Your task to perform on an android device: turn on notifications settings in the gmail app Image 0: 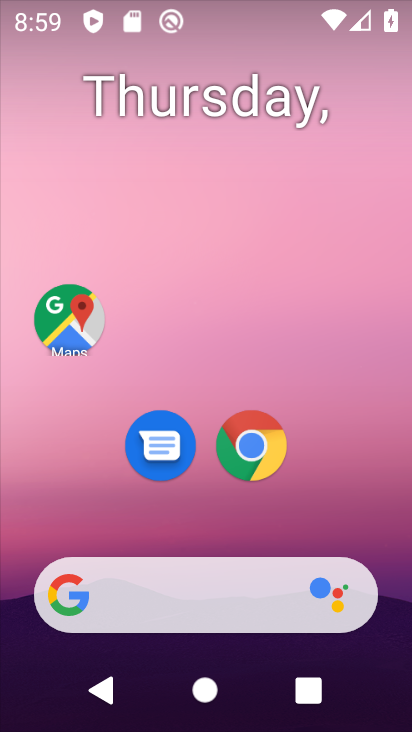
Step 0: drag from (204, 535) to (176, 83)
Your task to perform on an android device: turn on notifications settings in the gmail app Image 1: 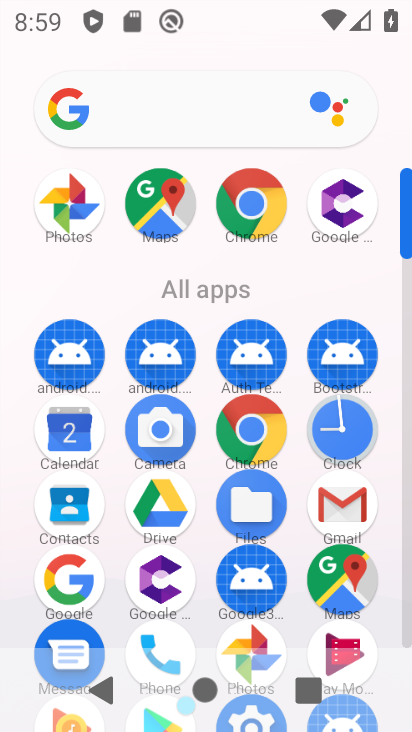
Step 1: click (366, 497)
Your task to perform on an android device: turn on notifications settings in the gmail app Image 2: 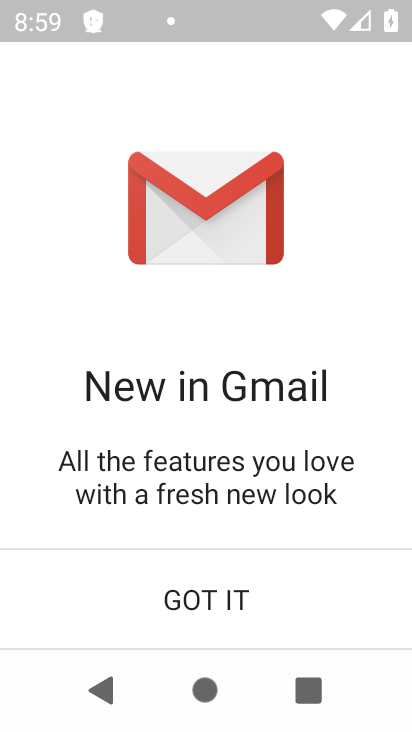
Step 2: click (243, 586)
Your task to perform on an android device: turn on notifications settings in the gmail app Image 3: 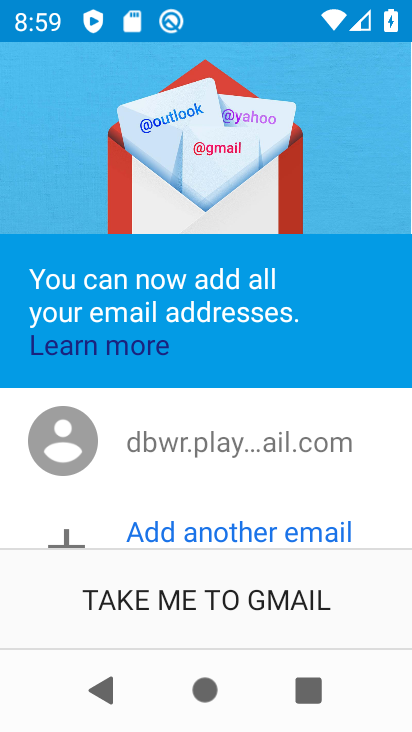
Step 3: click (243, 586)
Your task to perform on an android device: turn on notifications settings in the gmail app Image 4: 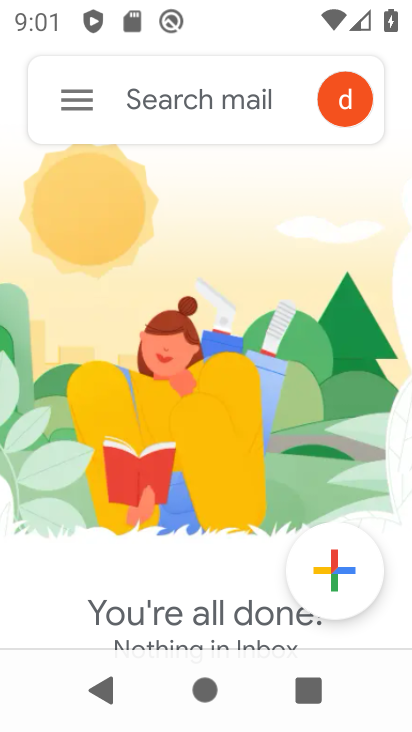
Step 4: press home button
Your task to perform on an android device: turn on notifications settings in the gmail app Image 5: 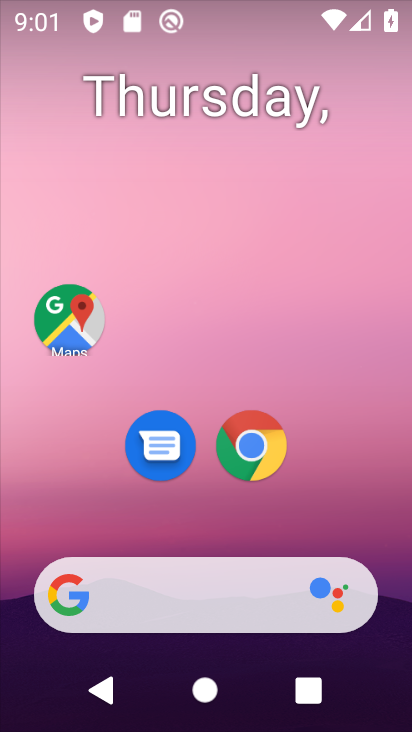
Step 5: drag from (182, 539) to (231, 39)
Your task to perform on an android device: turn on notifications settings in the gmail app Image 6: 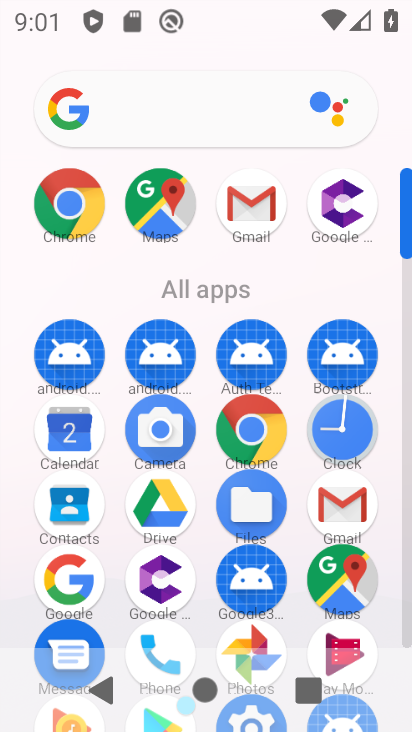
Step 6: click (330, 502)
Your task to perform on an android device: turn on notifications settings in the gmail app Image 7: 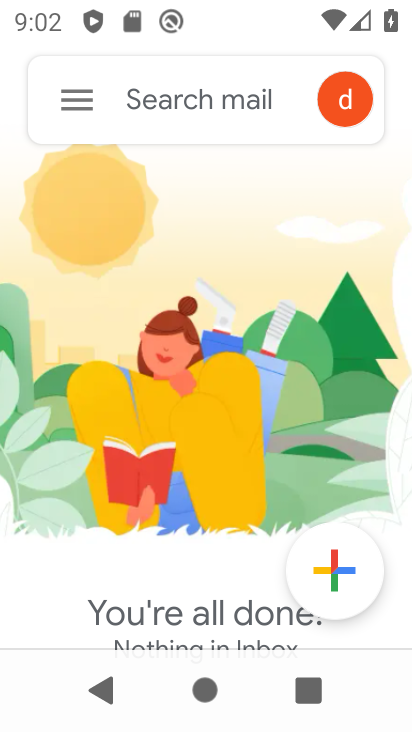
Step 7: click (64, 94)
Your task to perform on an android device: turn on notifications settings in the gmail app Image 8: 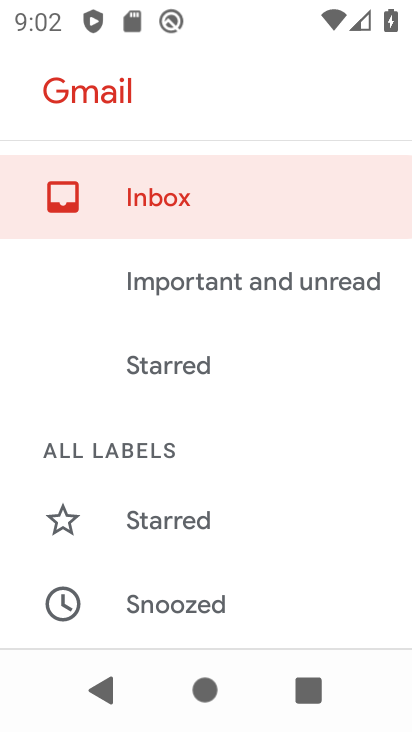
Step 8: drag from (146, 532) to (126, 20)
Your task to perform on an android device: turn on notifications settings in the gmail app Image 9: 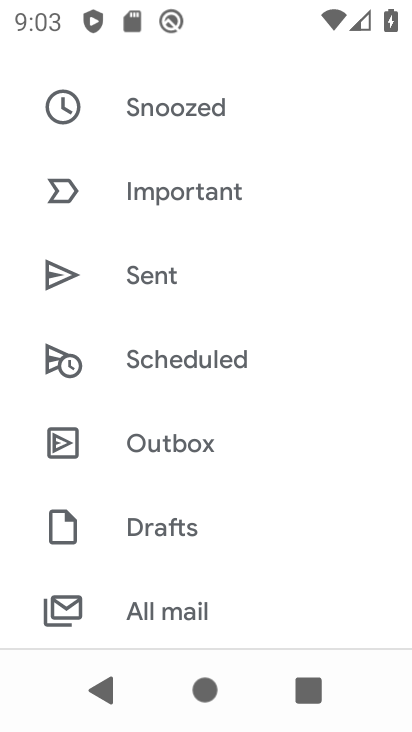
Step 9: drag from (320, 555) to (254, 188)
Your task to perform on an android device: turn on notifications settings in the gmail app Image 10: 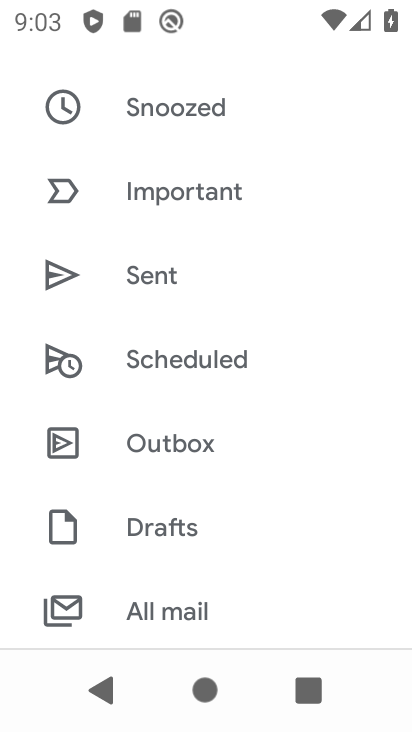
Step 10: drag from (154, 558) to (131, 107)
Your task to perform on an android device: turn on notifications settings in the gmail app Image 11: 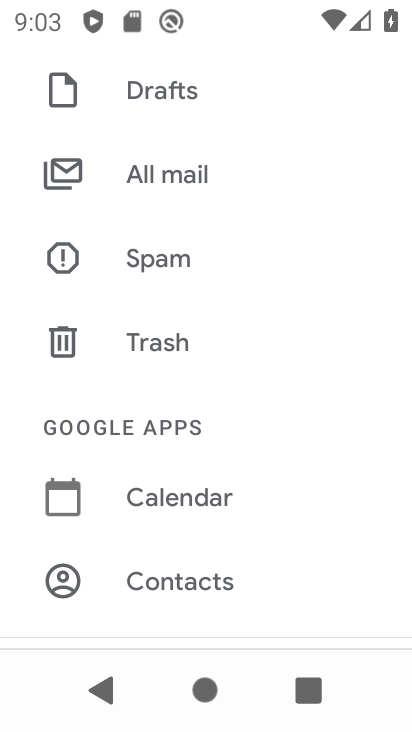
Step 11: drag from (140, 511) to (88, 54)
Your task to perform on an android device: turn on notifications settings in the gmail app Image 12: 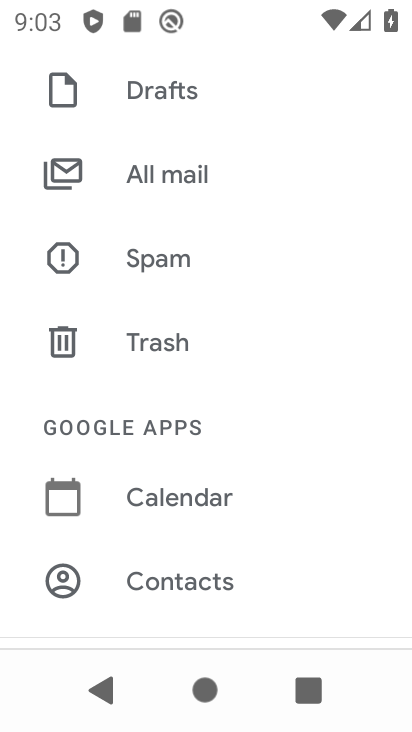
Step 12: drag from (199, 534) to (180, 61)
Your task to perform on an android device: turn on notifications settings in the gmail app Image 13: 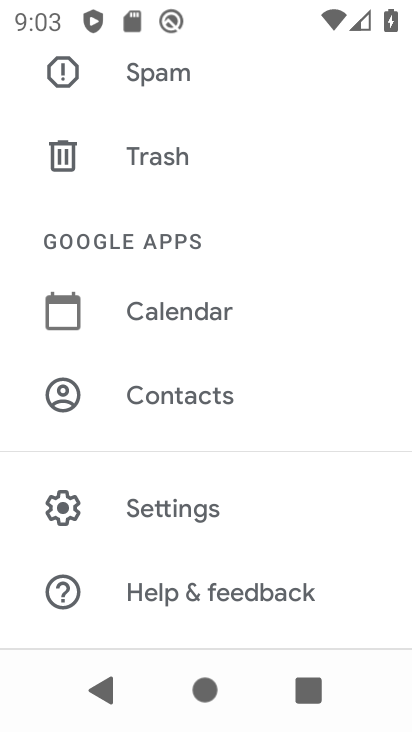
Step 13: click (149, 501)
Your task to perform on an android device: turn on notifications settings in the gmail app Image 14: 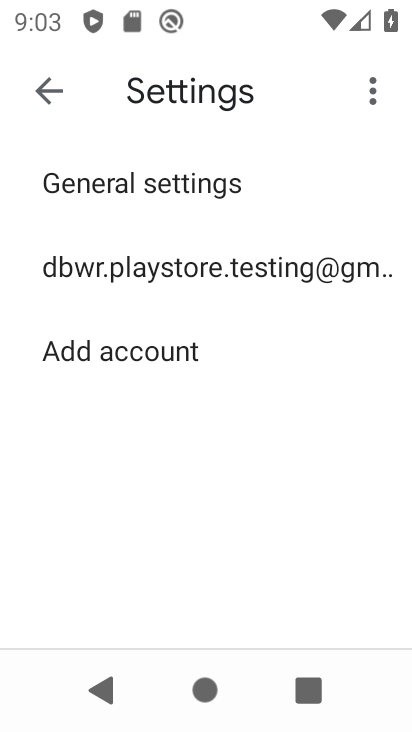
Step 14: click (82, 175)
Your task to perform on an android device: turn on notifications settings in the gmail app Image 15: 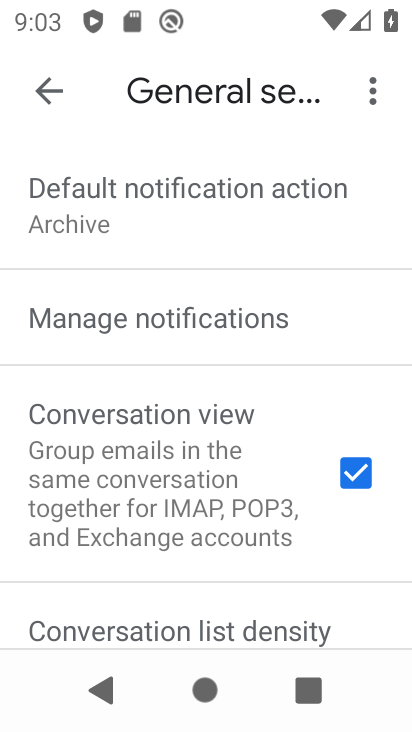
Step 15: click (184, 344)
Your task to perform on an android device: turn on notifications settings in the gmail app Image 16: 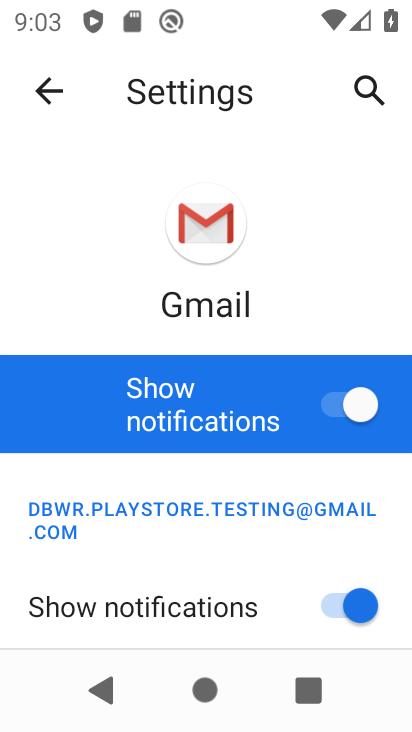
Step 16: task complete